Your task to perform on an android device: turn off notifications settings in the gmail app Image 0: 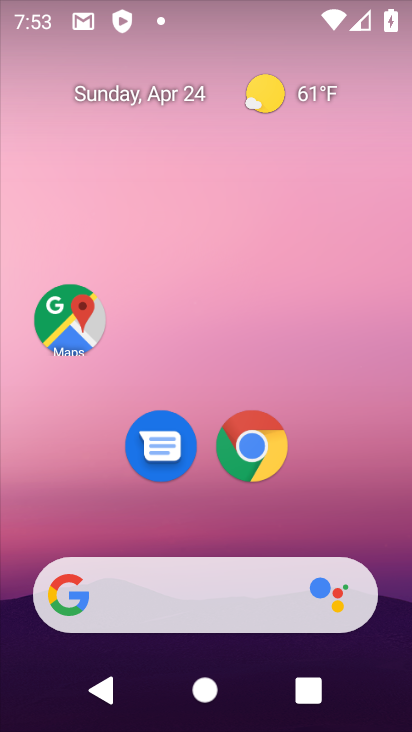
Step 0: drag from (218, 452) to (317, 106)
Your task to perform on an android device: turn off notifications settings in the gmail app Image 1: 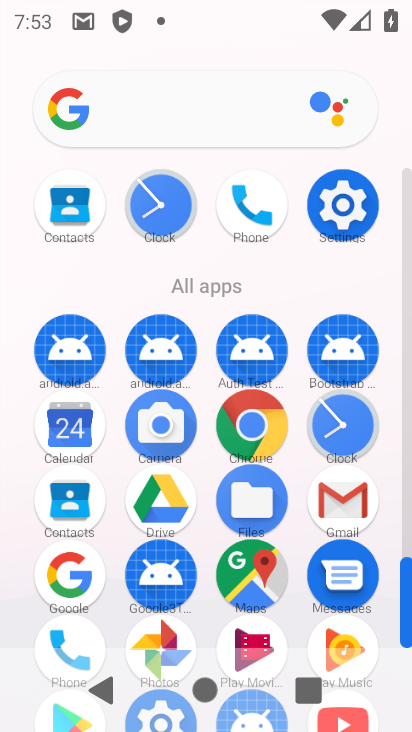
Step 1: click (328, 505)
Your task to perform on an android device: turn off notifications settings in the gmail app Image 2: 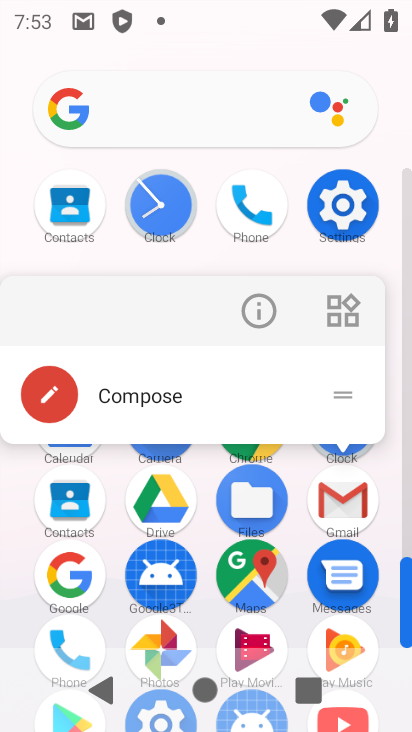
Step 2: click (338, 506)
Your task to perform on an android device: turn off notifications settings in the gmail app Image 3: 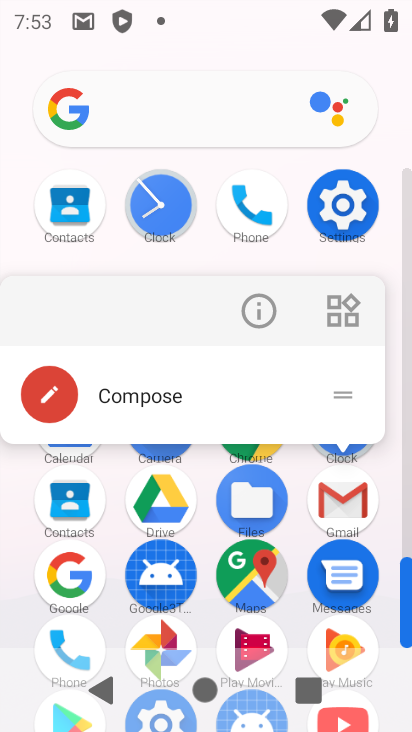
Step 3: click (346, 516)
Your task to perform on an android device: turn off notifications settings in the gmail app Image 4: 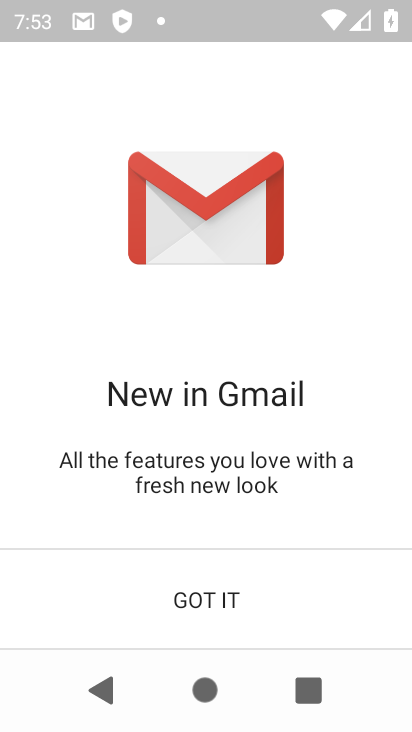
Step 4: click (295, 596)
Your task to perform on an android device: turn off notifications settings in the gmail app Image 5: 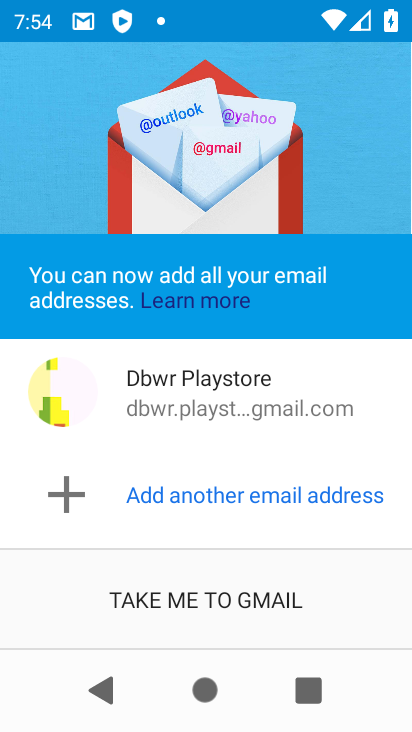
Step 5: click (297, 602)
Your task to perform on an android device: turn off notifications settings in the gmail app Image 6: 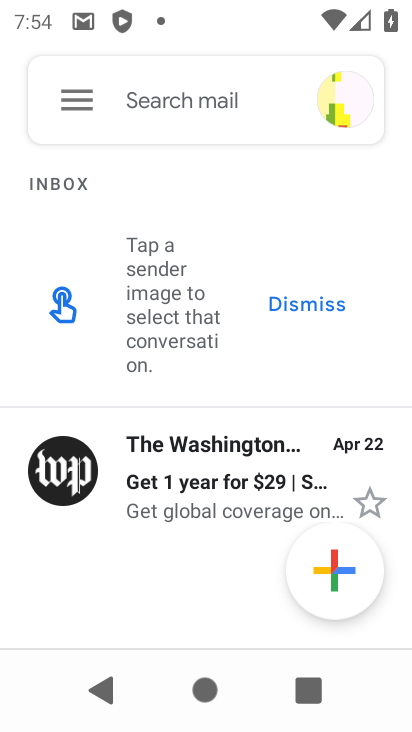
Step 6: click (79, 112)
Your task to perform on an android device: turn off notifications settings in the gmail app Image 7: 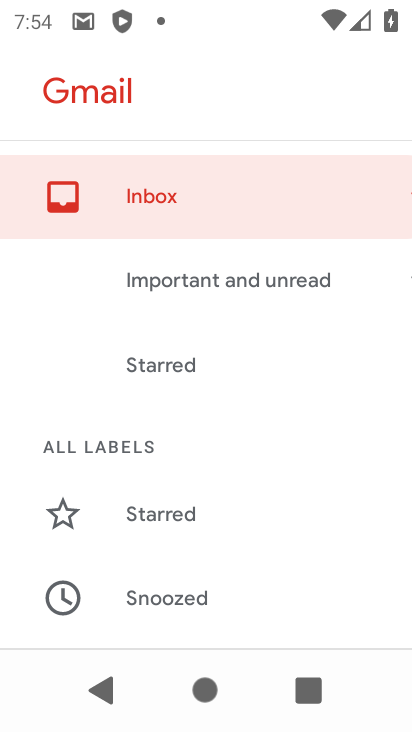
Step 7: drag from (253, 549) to (256, 151)
Your task to perform on an android device: turn off notifications settings in the gmail app Image 8: 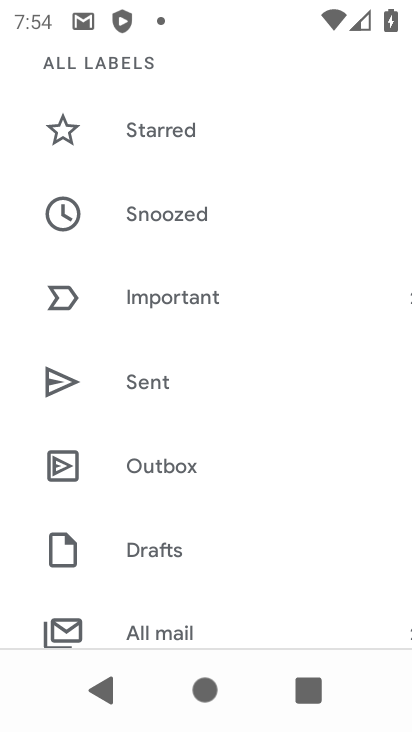
Step 8: drag from (202, 523) to (295, 118)
Your task to perform on an android device: turn off notifications settings in the gmail app Image 9: 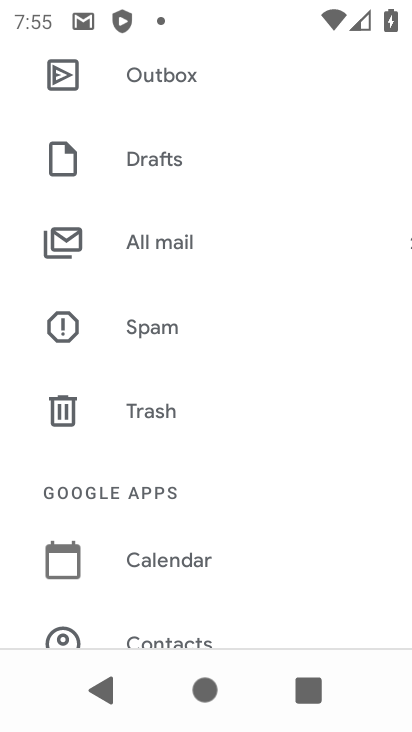
Step 9: drag from (188, 321) to (288, 37)
Your task to perform on an android device: turn off notifications settings in the gmail app Image 10: 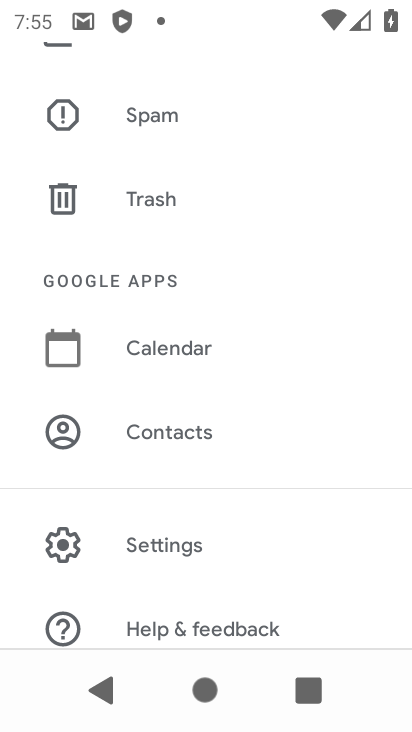
Step 10: click (110, 538)
Your task to perform on an android device: turn off notifications settings in the gmail app Image 11: 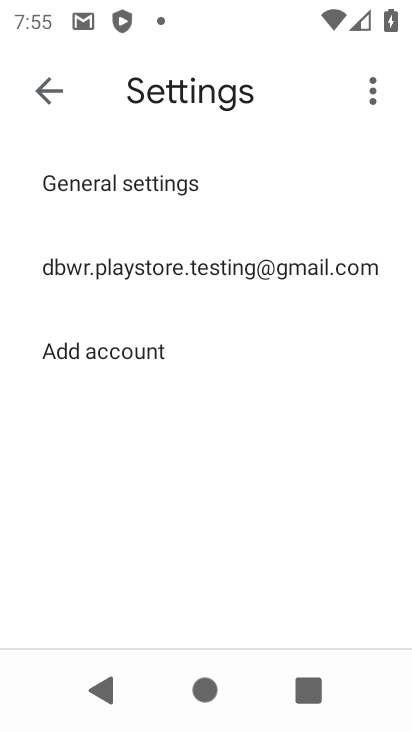
Step 11: click (153, 189)
Your task to perform on an android device: turn off notifications settings in the gmail app Image 12: 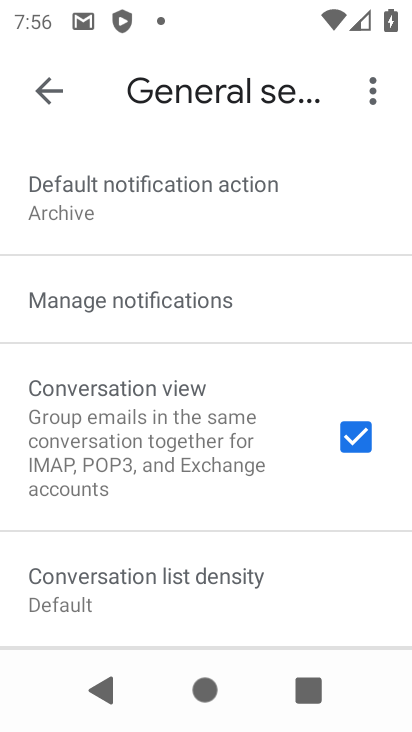
Step 12: click (140, 314)
Your task to perform on an android device: turn off notifications settings in the gmail app Image 13: 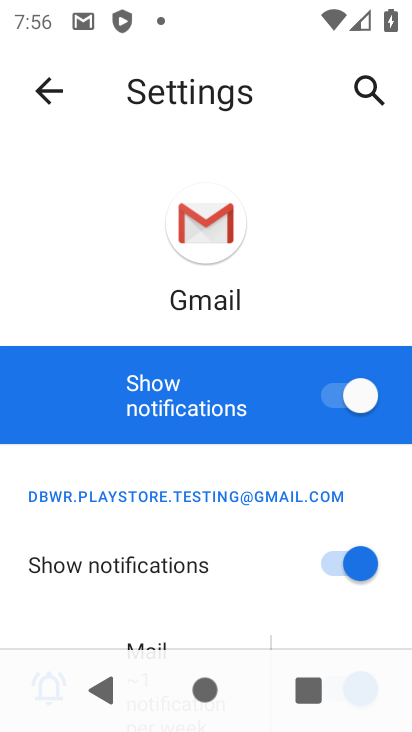
Step 13: click (337, 405)
Your task to perform on an android device: turn off notifications settings in the gmail app Image 14: 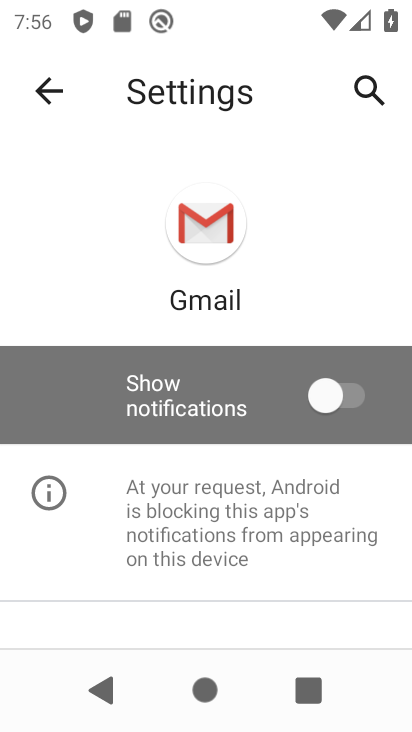
Step 14: task complete